Your task to perform on an android device: Do I have any events today? Image 0: 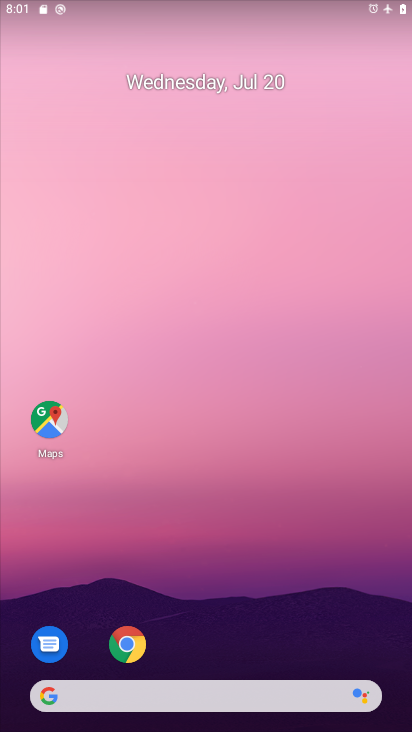
Step 0: drag from (188, 685) to (232, 348)
Your task to perform on an android device: Do I have any events today? Image 1: 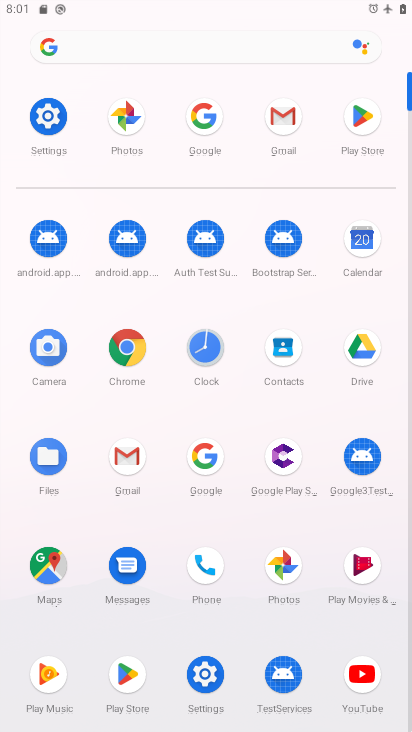
Step 1: click (365, 240)
Your task to perform on an android device: Do I have any events today? Image 2: 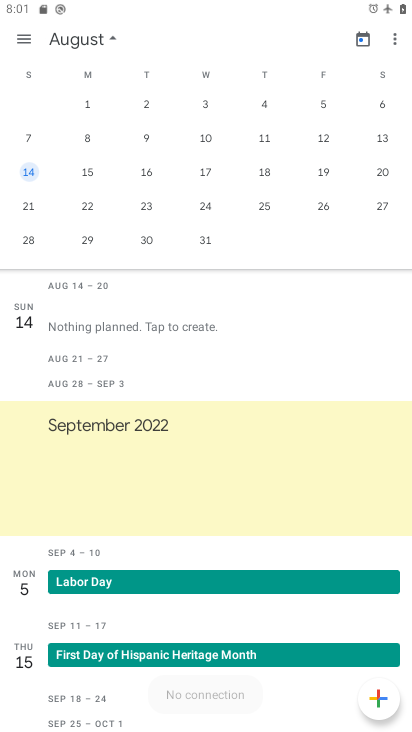
Step 2: drag from (22, 179) to (410, 215)
Your task to perform on an android device: Do I have any events today? Image 3: 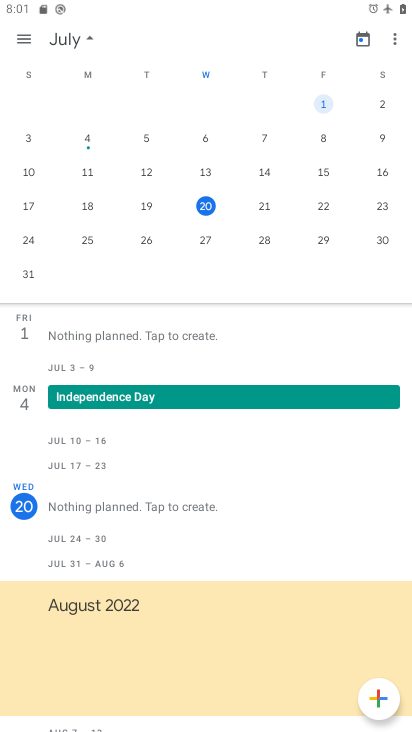
Step 3: click (205, 199)
Your task to perform on an android device: Do I have any events today? Image 4: 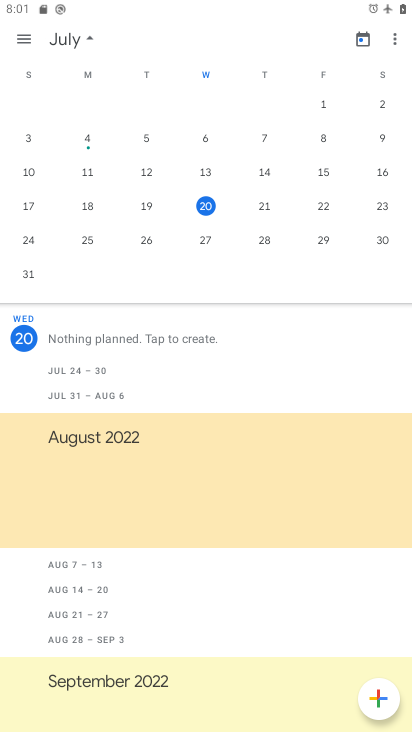
Step 4: task complete